Your task to perform on an android device: Search for vegetarian restaurants on Maps Image 0: 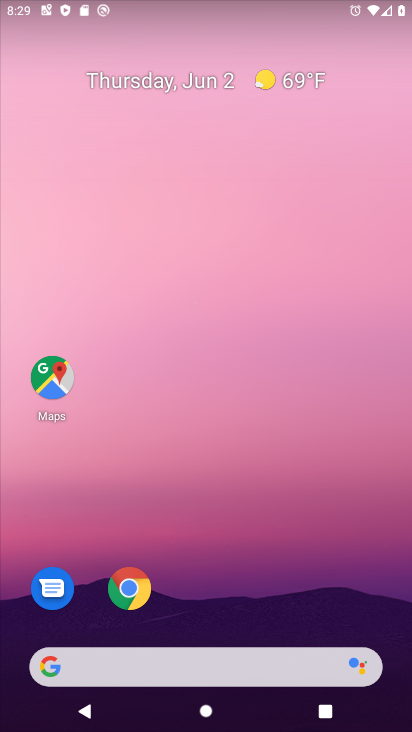
Step 0: drag from (245, 731) to (216, 43)
Your task to perform on an android device: Search for vegetarian restaurants on Maps Image 1: 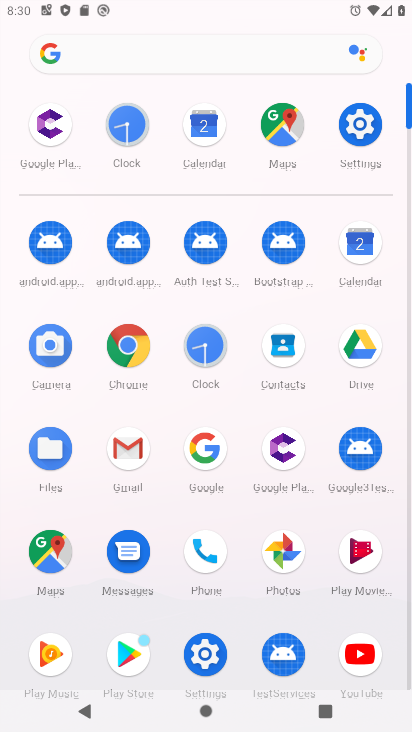
Step 1: click (44, 560)
Your task to perform on an android device: Search for vegetarian restaurants on Maps Image 2: 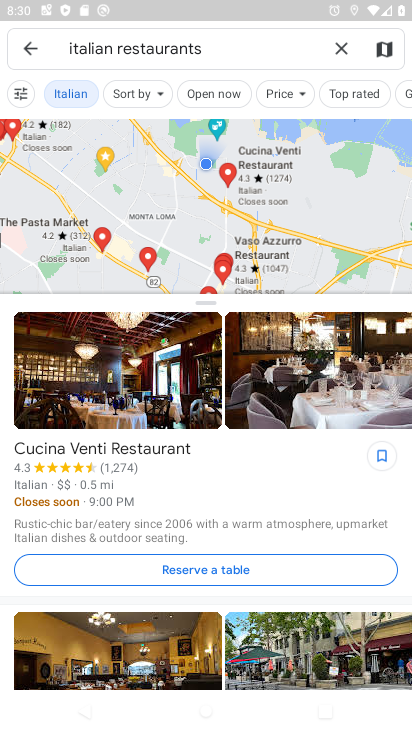
Step 2: click (341, 46)
Your task to perform on an android device: Search for vegetarian restaurants on Maps Image 3: 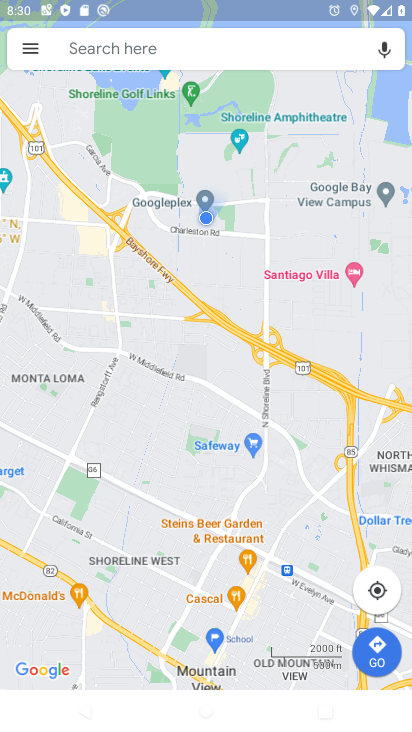
Step 3: click (172, 50)
Your task to perform on an android device: Search for vegetarian restaurants on Maps Image 4: 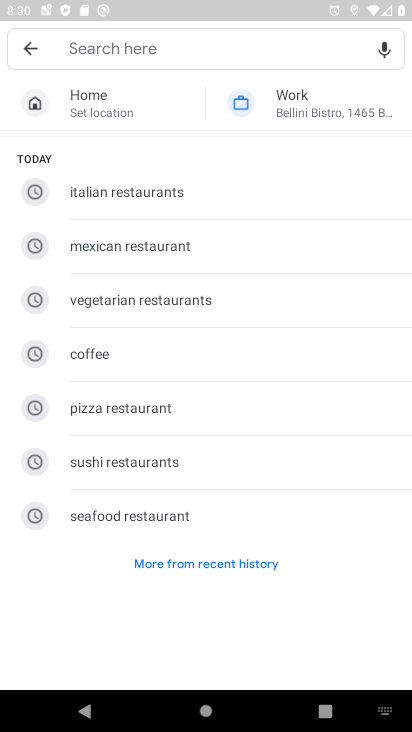
Step 4: type "vegetarian restaurants"
Your task to perform on an android device: Search for vegetarian restaurants on Maps Image 5: 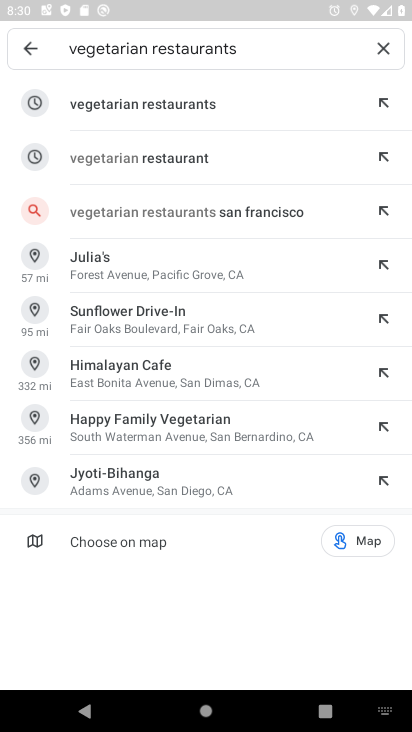
Step 5: click (178, 103)
Your task to perform on an android device: Search for vegetarian restaurants on Maps Image 6: 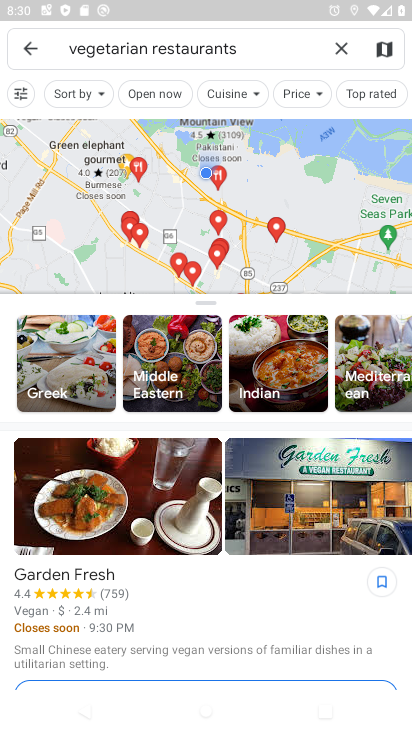
Step 6: task complete